Your task to perform on an android device: Open Amazon Image 0: 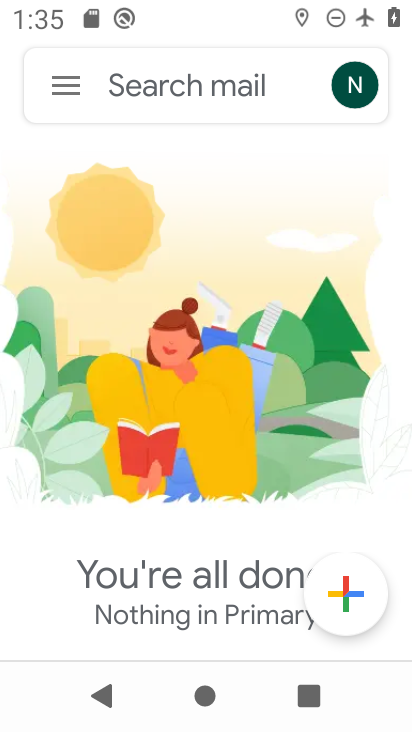
Step 0: press home button
Your task to perform on an android device: Open Amazon Image 1: 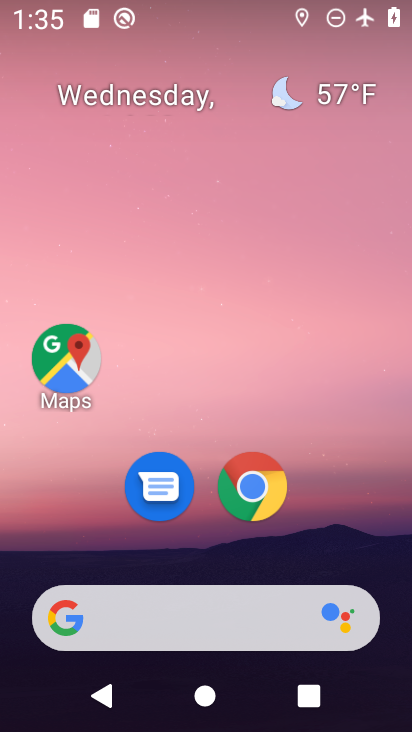
Step 1: drag from (355, 522) to (383, 72)
Your task to perform on an android device: Open Amazon Image 2: 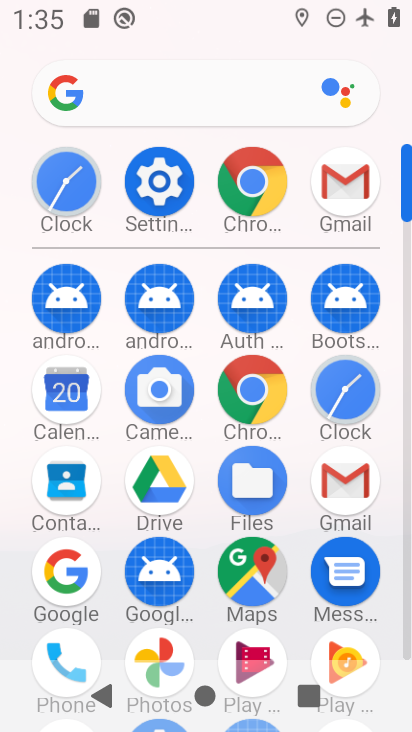
Step 2: click (258, 389)
Your task to perform on an android device: Open Amazon Image 3: 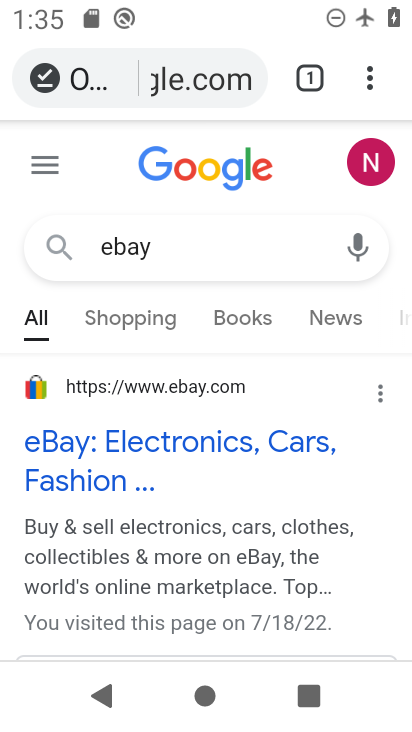
Step 3: click (232, 74)
Your task to perform on an android device: Open Amazon Image 4: 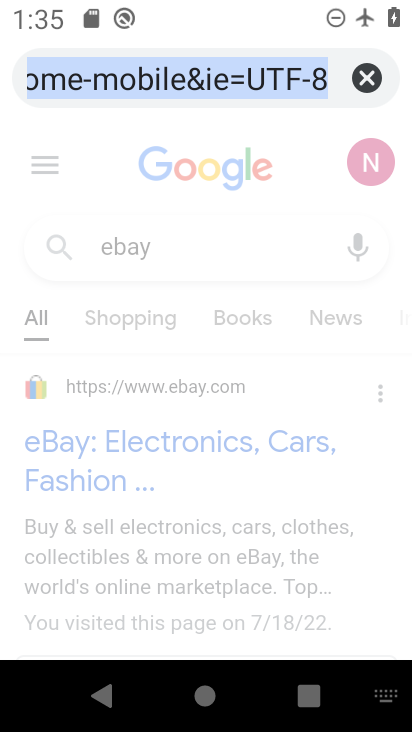
Step 4: type "amazon"
Your task to perform on an android device: Open Amazon Image 5: 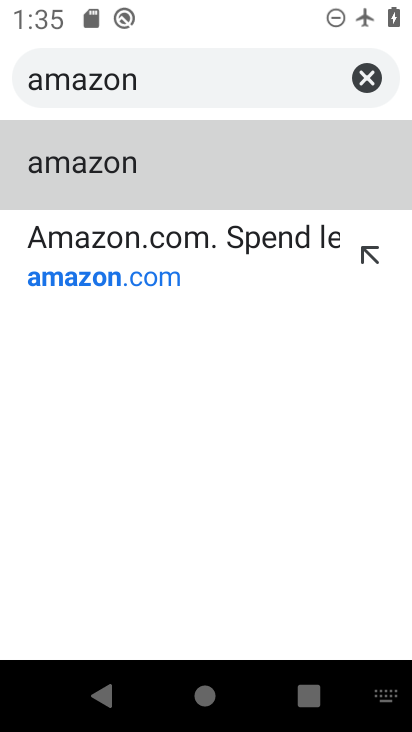
Step 5: click (168, 151)
Your task to perform on an android device: Open Amazon Image 6: 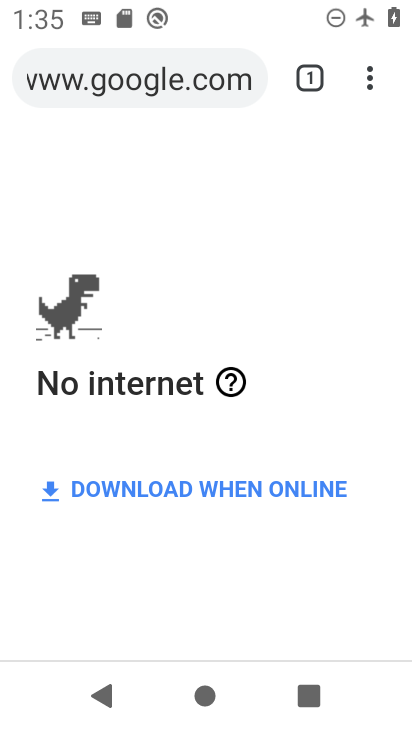
Step 6: task complete